Your task to perform on an android device: change notifications settings Image 0: 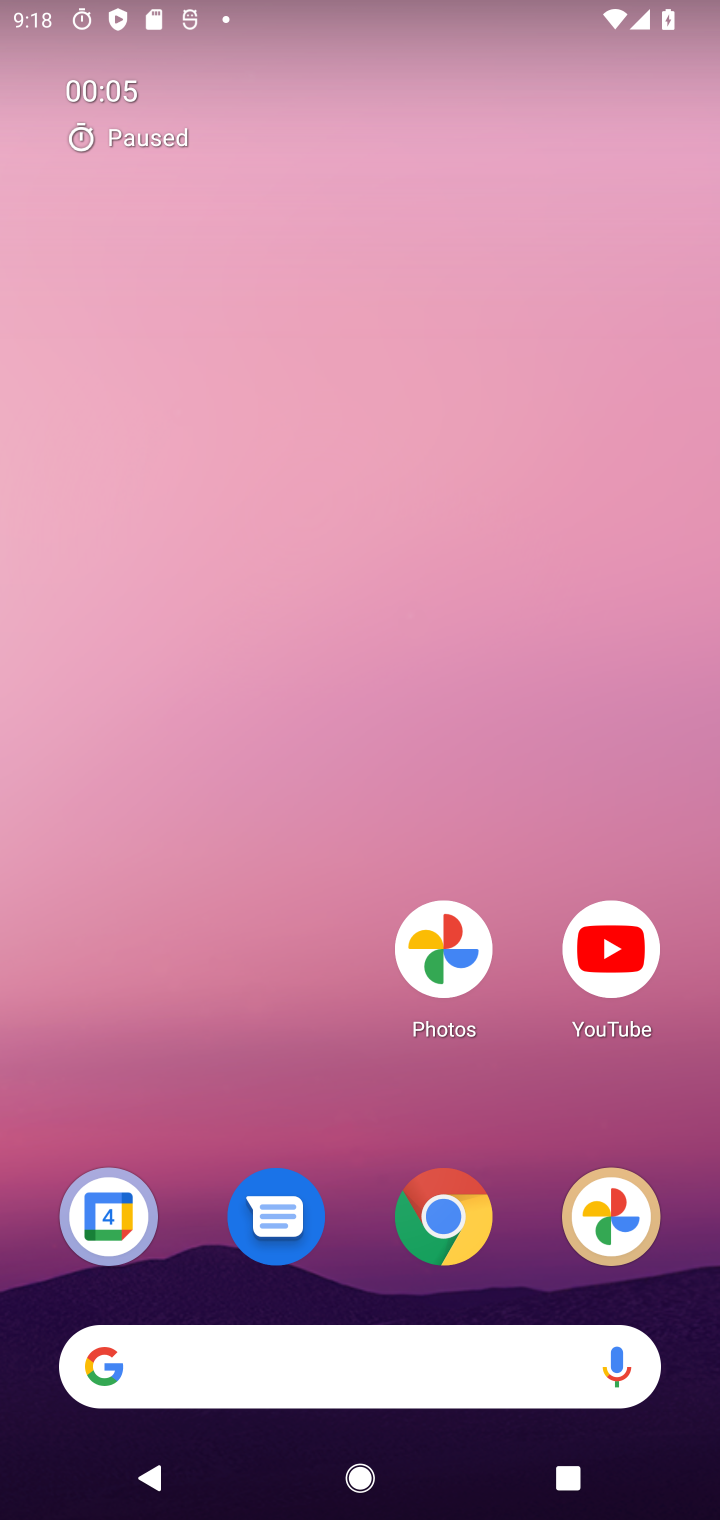
Step 0: drag from (358, 1303) to (356, 285)
Your task to perform on an android device: change notifications settings Image 1: 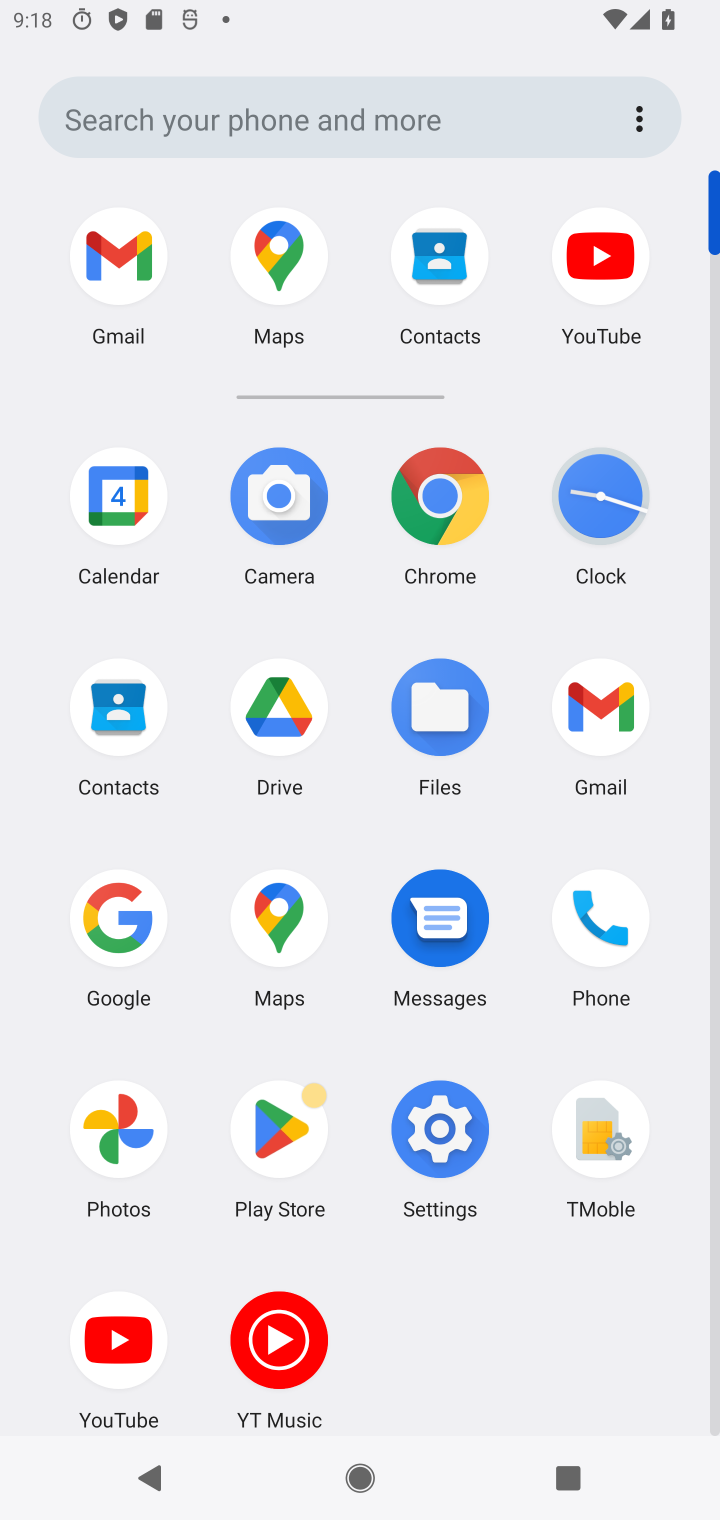
Step 1: click (447, 1141)
Your task to perform on an android device: change notifications settings Image 2: 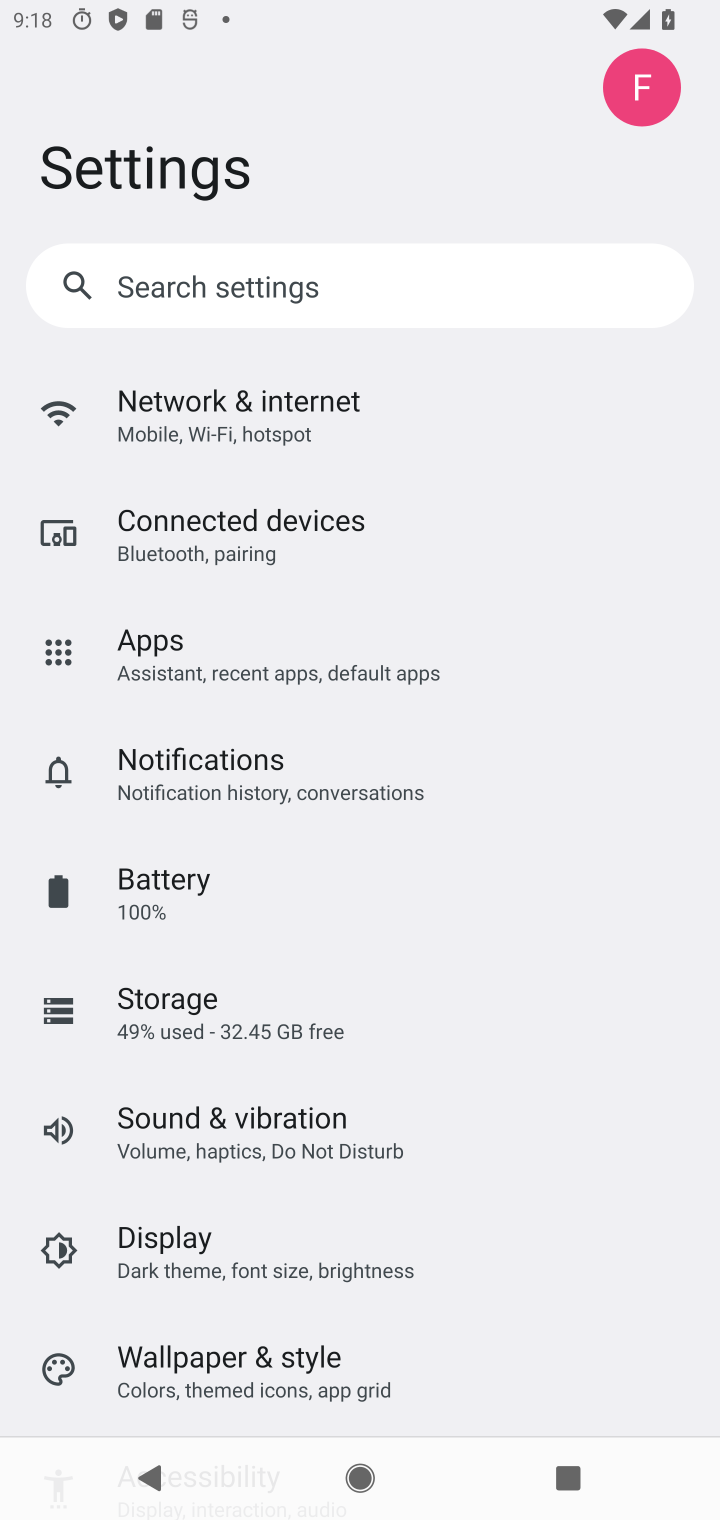
Step 2: click (194, 788)
Your task to perform on an android device: change notifications settings Image 3: 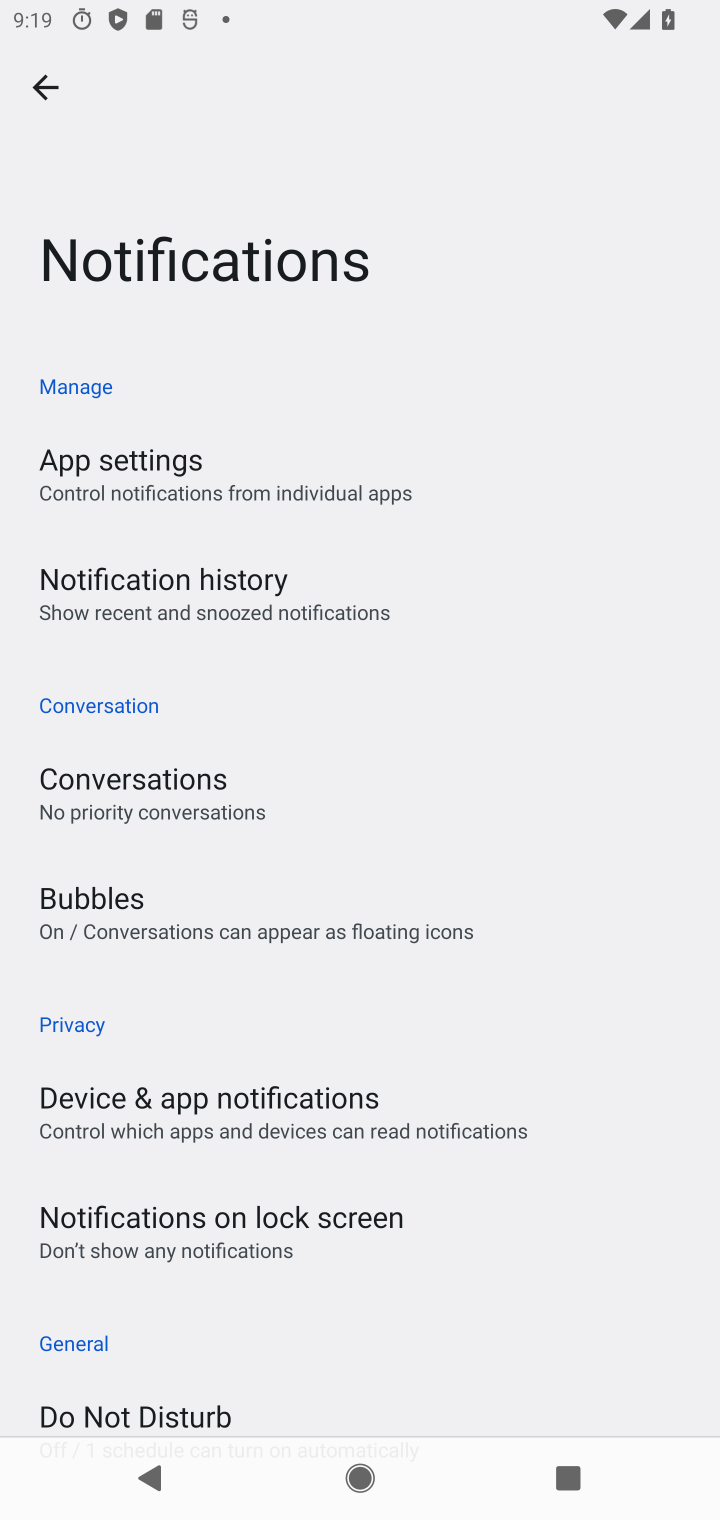
Step 3: drag from (186, 1304) to (186, 431)
Your task to perform on an android device: change notifications settings Image 4: 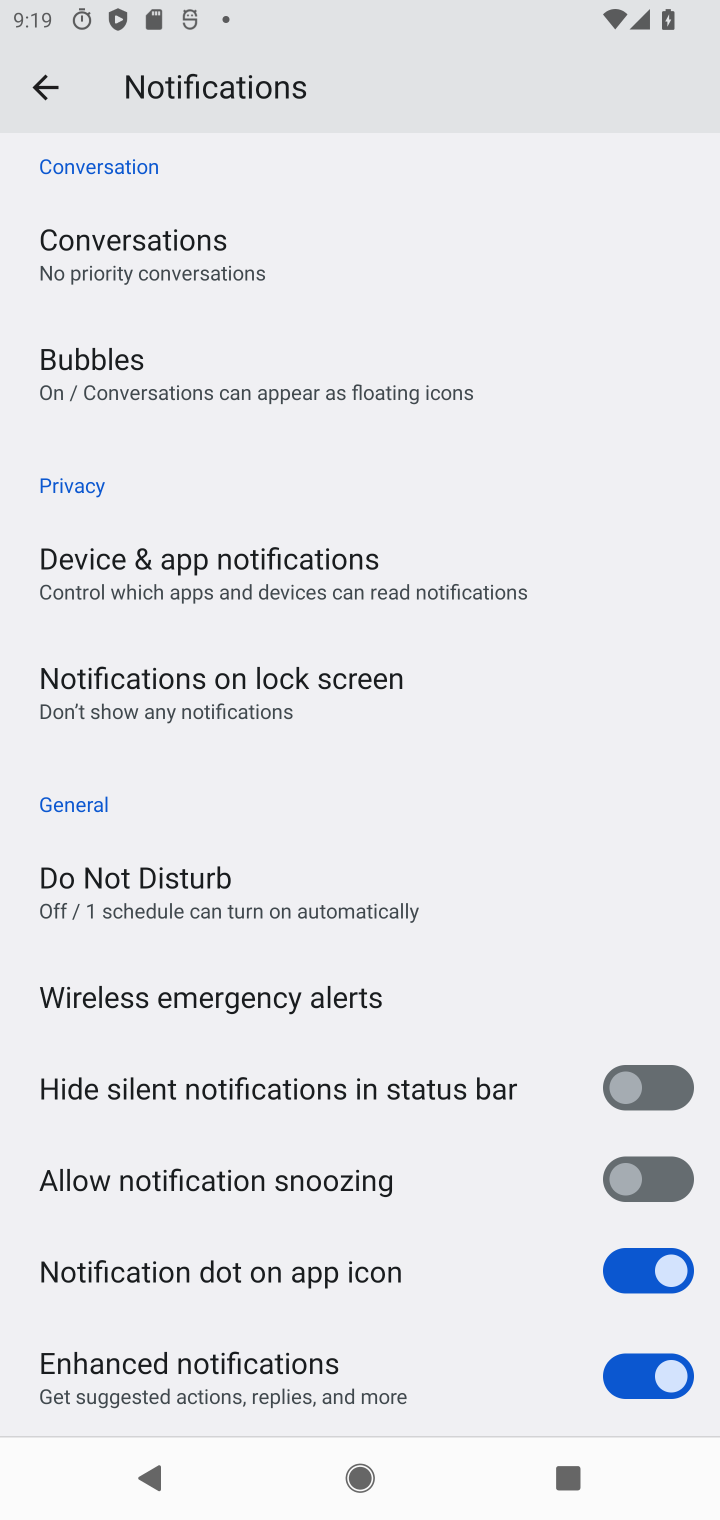
Step 4: click (660, 1096)
Your task to perform on an android device: change notifications settings Image 5: 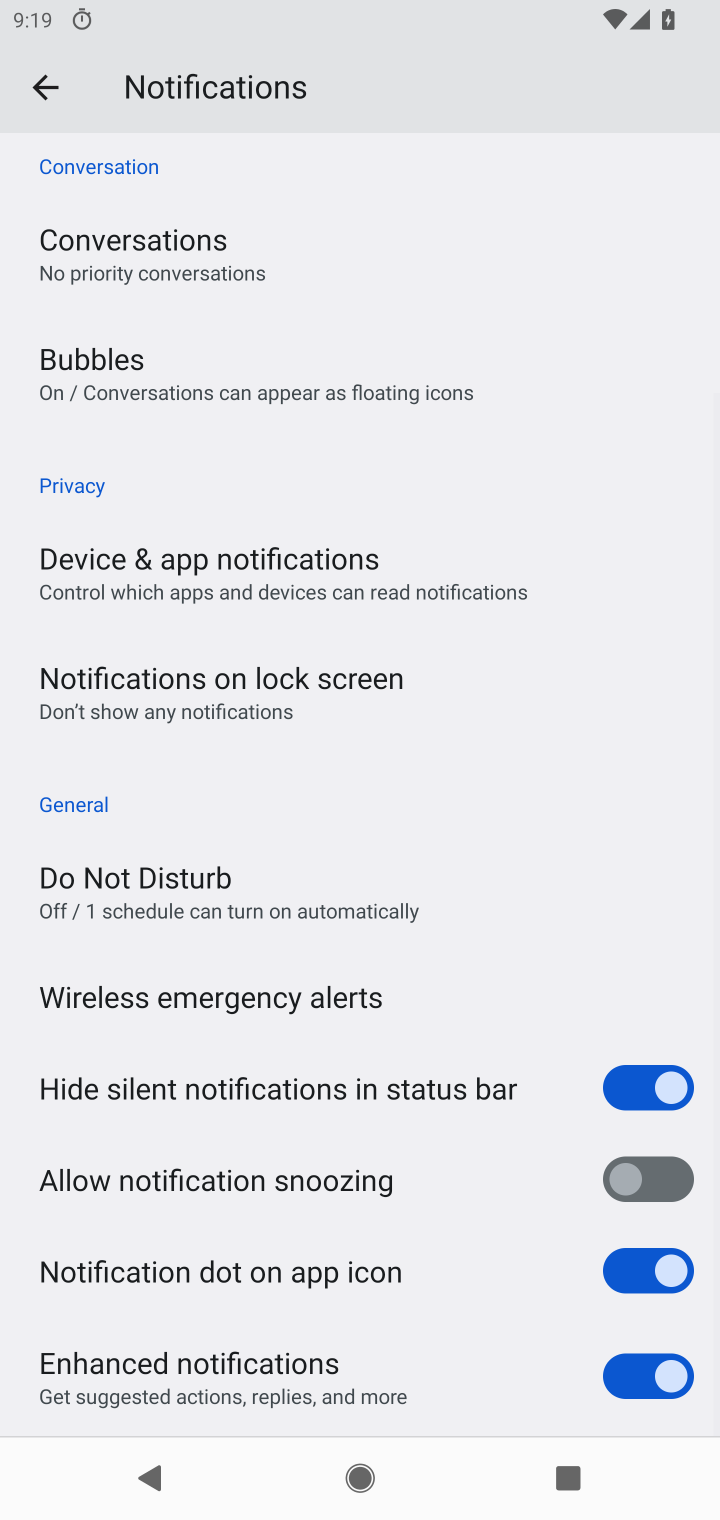
Step 5: task complete